Your task to perform on an android device: open chrome and create a bookmark for the current page Image 0: 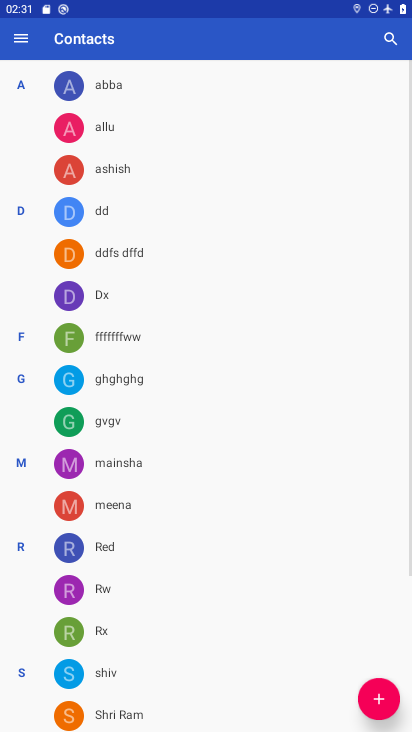
Step 0: press home button
Your task to perform on an android device: open chrome and create a bookmark for the current page Image 1: 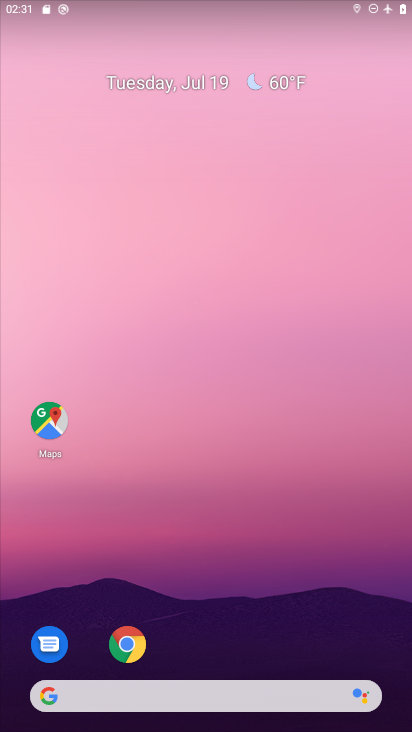
Step 1: drag from (217, 668) to (137, 150)
Your task to perform on an android device: open chrome and create a bookmark for the current page Image 2: 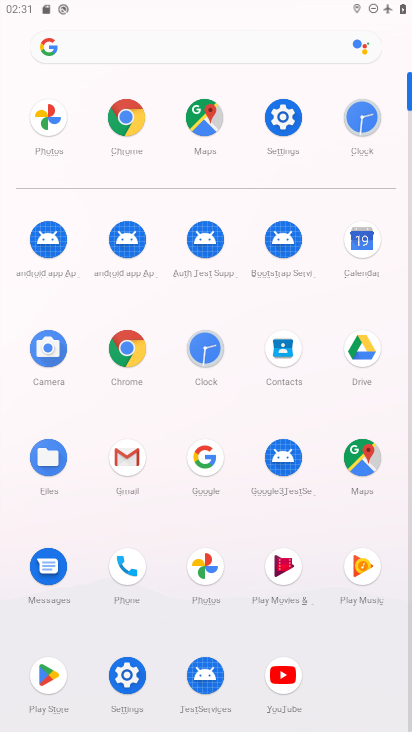
Step 2: click (119, 348)
Your task to perform on an android device: open chrome and create a bookmark for the current page Image 3: 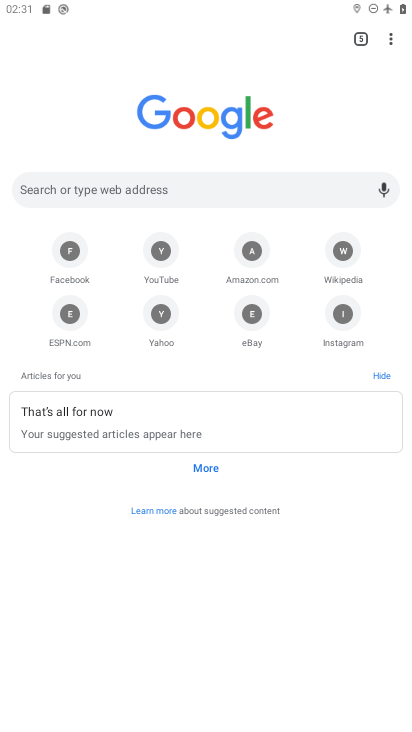
Step 3: task complete